Your task to perform on an android device: Open internet settings Image 0: 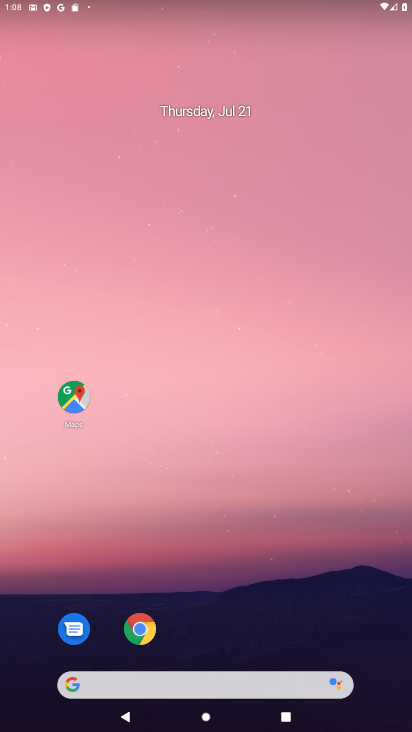
Step 0: drag from (244, 607) to (269, 181)
Your task to perform on an android device: Open internet settings Image 1: 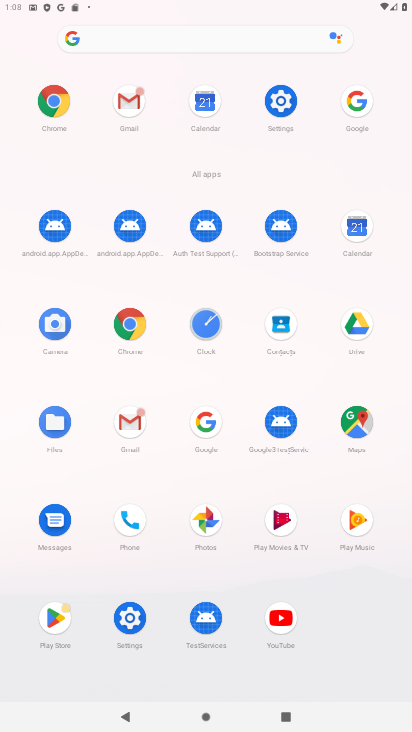
Step 1: click (286, 98)
Your task to perform on an android device: Open internet settings Image 2: 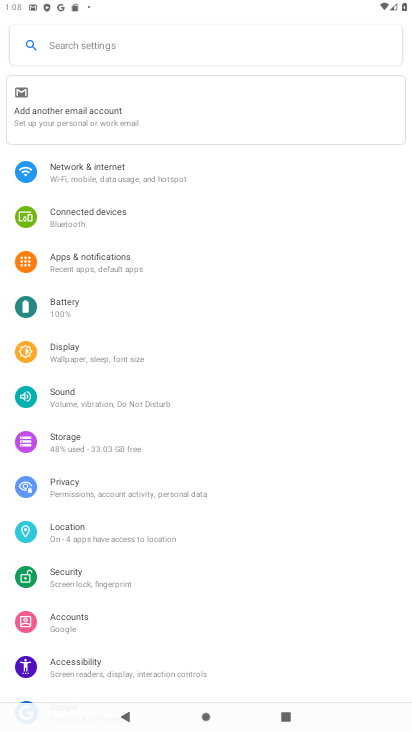
Step 2: click (81, 172)
Your task to perform on an android device: Open internet settings Image 3: 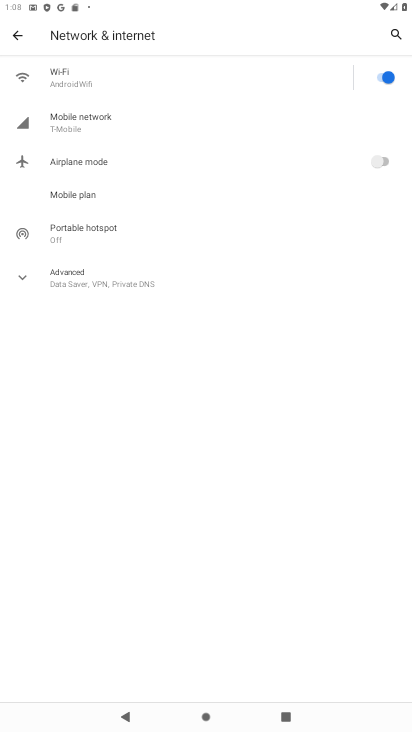
Step 3: click (104, 80)
Your task to perform on an android device: Open internet settings Image 4: 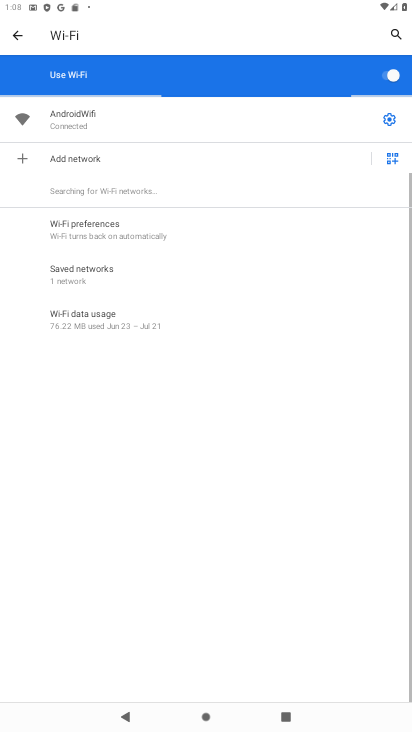
Step 4: click (117, 121)
Your task to perform on an android device: Open internet settings Image 5: 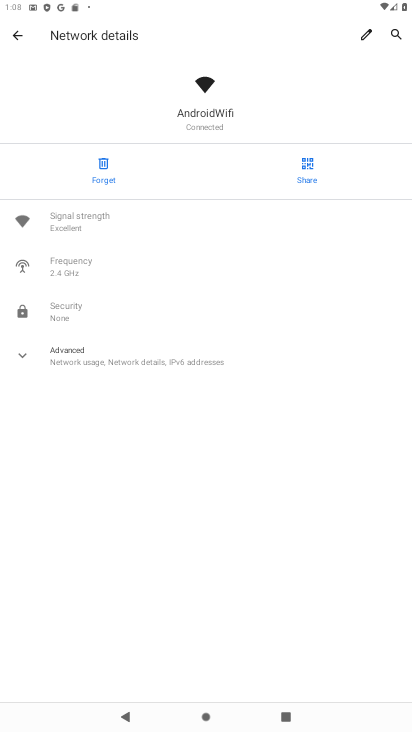
Step 5: task complete